Your task to perform on an android device: turn vacation reply on in the gmail app Image 0: 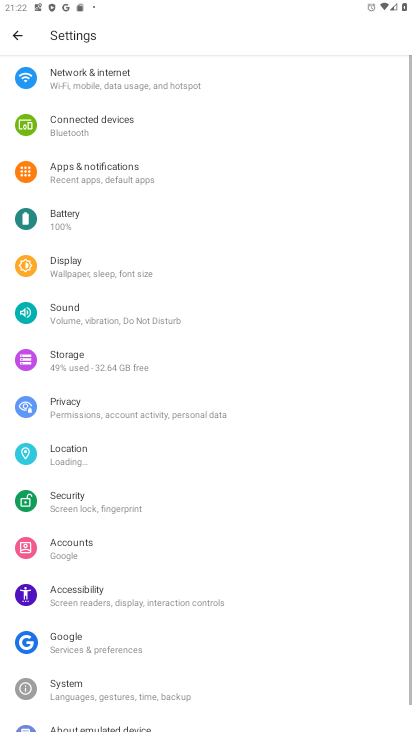
Step 0: press home button
Your task to perform on an android device: turn vacation reply on in the gmail app Image 1: 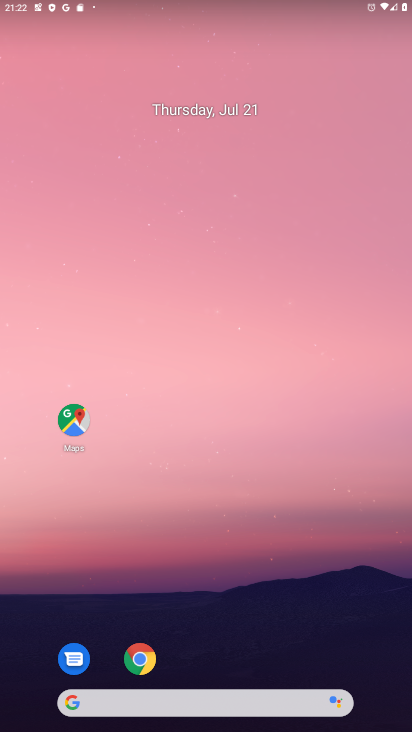
Step 1: drag from (260, 683) to (257, 115)
Your task to perform on an android device: turn vacation reply on in the gmail app Image 2: 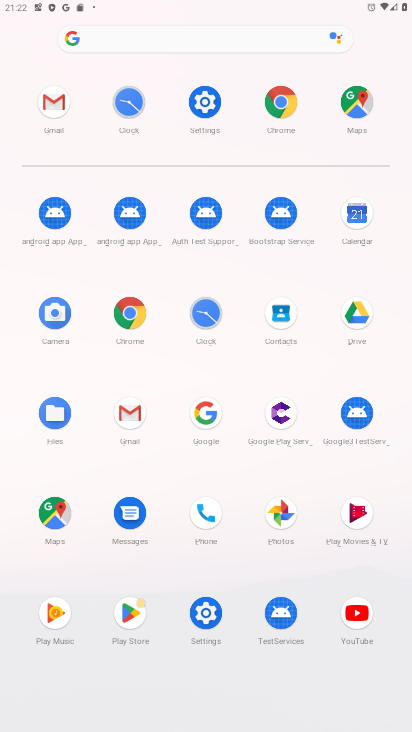
Step 2: click (128, 407)
Your task to perform on an android device: turn vacation reply on in the gmail app Image 3: 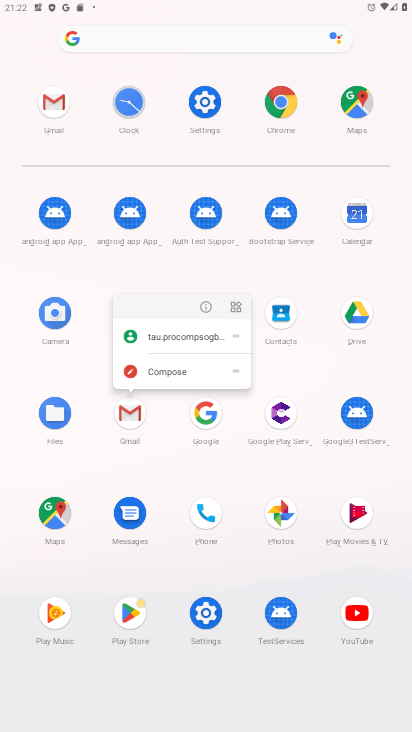
Step 3: click (128, 407)
Your task to perform on an android device: turn vacation reply on in the gmail app Image 4: 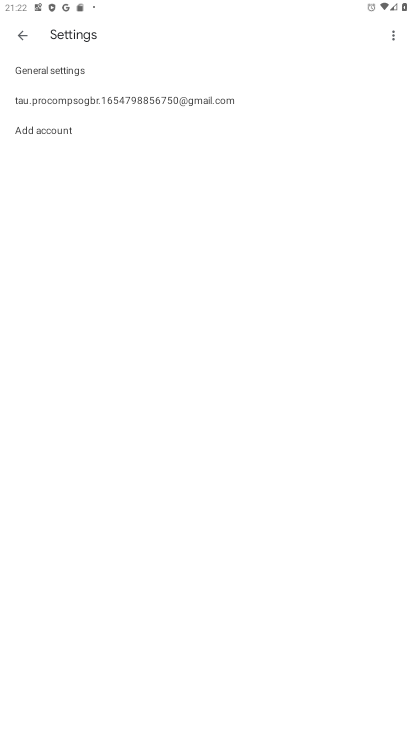
Step 4: click (21, 35)
Your task to perform on an android device: turn vacation reply on in the gmail app Image 5: 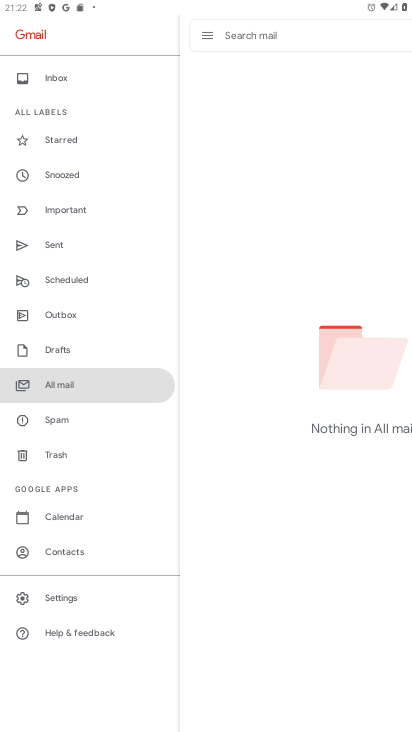
Step 5: click (65, 594)
Your task to perform on an android device: turn vacation reply on in the gmail app Image 6: 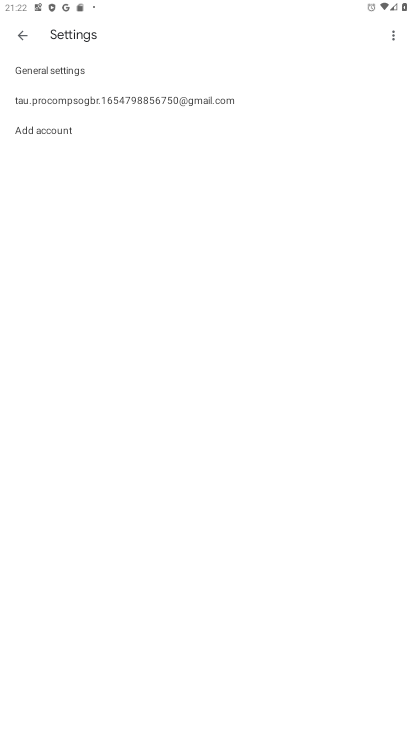
Step 6: drag from (228, 582) to (227, 411)
Your task to perform on an android device: turn vacation reply on in the gmail app Image 7: 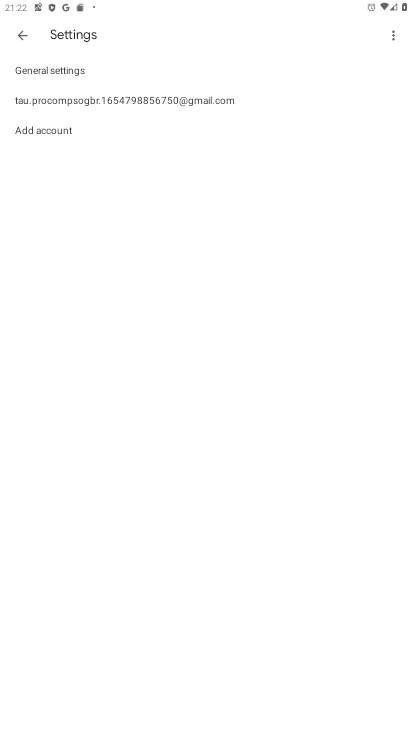
Step 7: click (203, 107)
Your task to perform on an android device: turn vacation reply on in the gmail app Image 8: 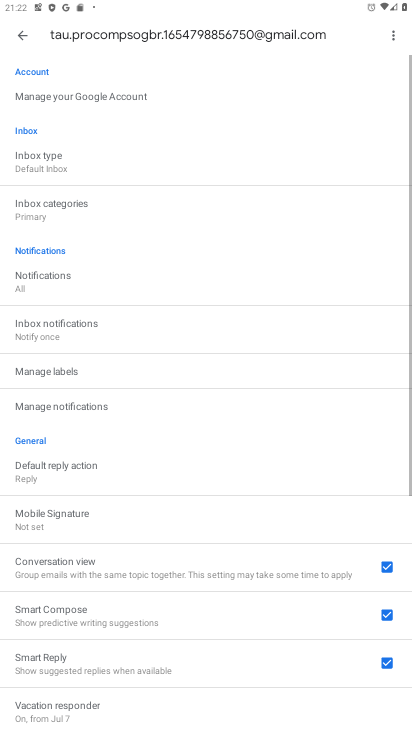
Step 8: drag from (192, 582) to (188, 461)
Your task to perform on an android device: turn vacation reply on in the gmail app Image 9: 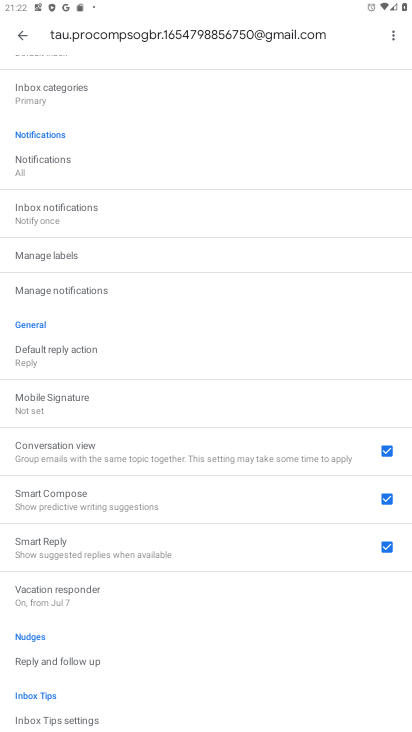
Step 9: click (42, 607)
Your task to perform on an android device: turn vacation reply on in the gmail app Image 10: 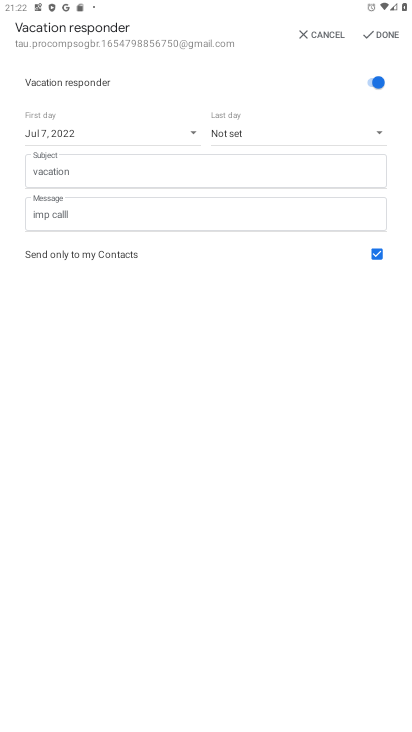
Step 10: click (74, 135)
Your task to perform on an android device: turn vacation reply on in the gmail app Image 11: 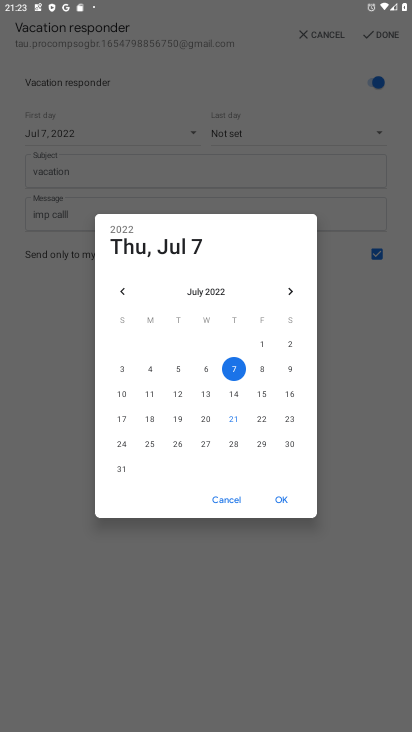
Step 11: click (252, 421)
Your task to perform on an android device: turn vacation reply on in the gmail app Image 12: 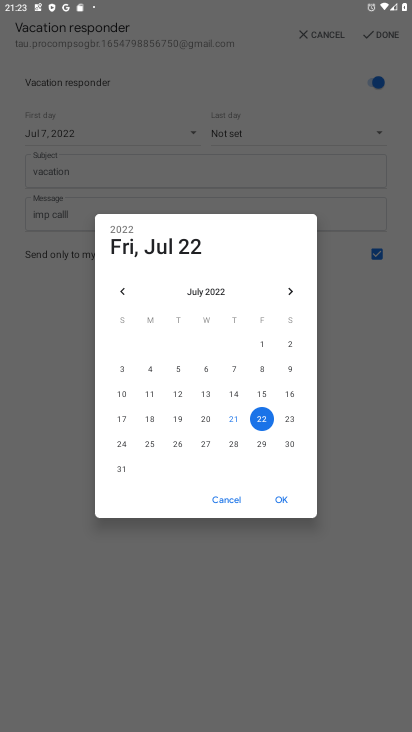
Step 12: click (284, 490)
Your task to perform on an android device: turn vacation reply on in the gmail app Image 13: 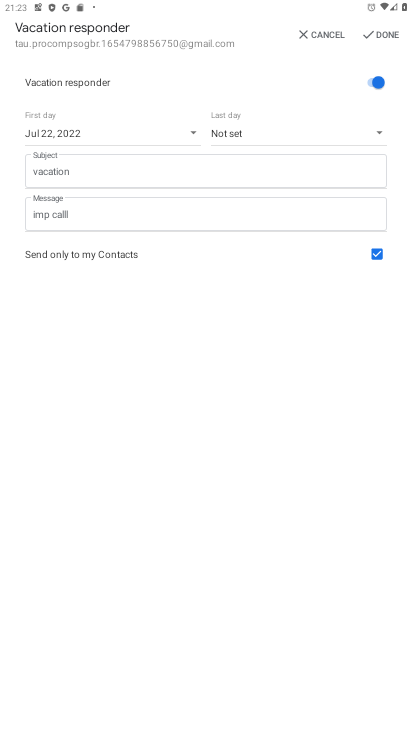
Step 13: click (240, 131)
Your task to perform on an android device: turn vacation reply on in the gmail app Image 14: 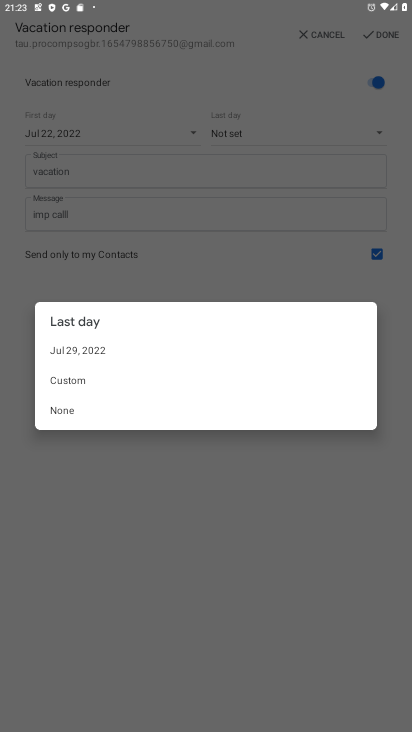
Step 14: click (78, 372)
Your task to perform on an android device: turn vacation reply on in the gmail app Image 15: 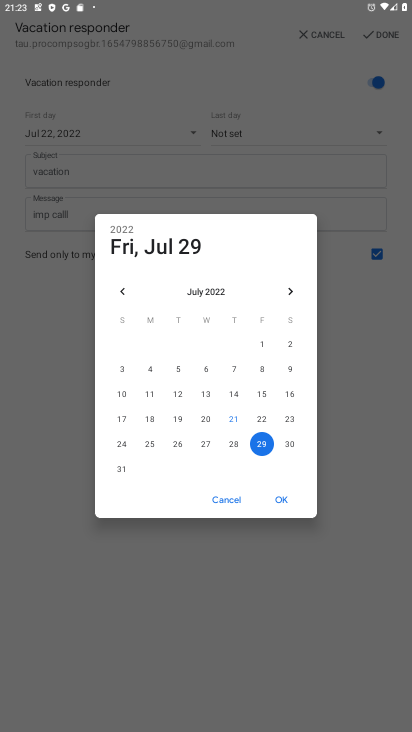
Step 15: drag from (288, 443) to (7, 380)
Your task to perform on an android device: turn vacation reply on in the gmail app Image 16: 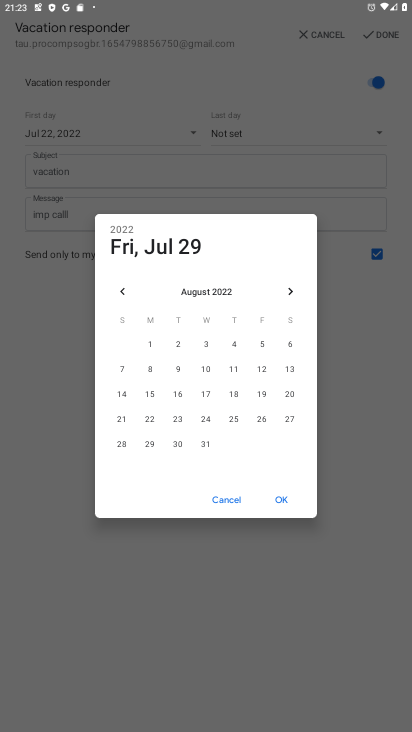
Step 16: drag from (250, 444) to (10, 436)
Your task to perform on an android device: turn vacation reply on in the gmail app Image 17: 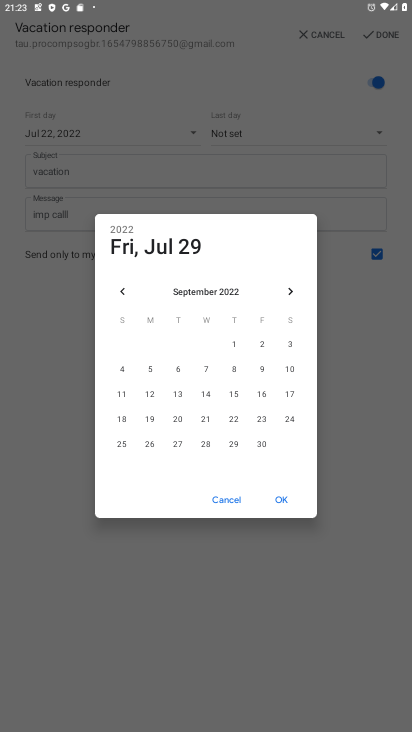
Step 17: drag from (262, 407) to (0, 387)
Your task to perform on an android device: turn vacation reply on in the gmail app Image 18: 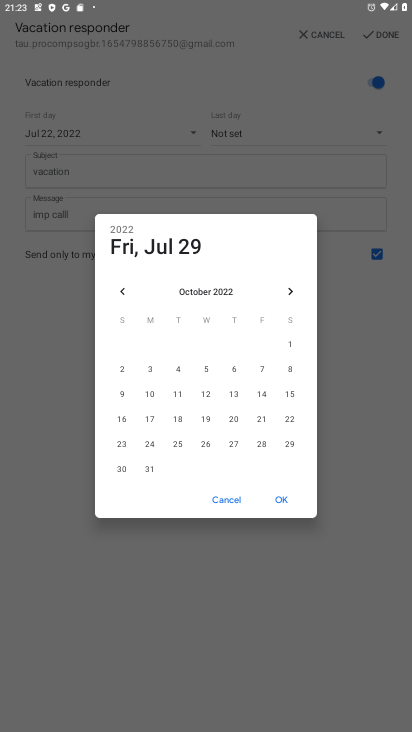
Step 18: drag from (194, 406) to (1, 360)
Your task to perform on an android device: turn vacation reply on in the gmail app Image 19: 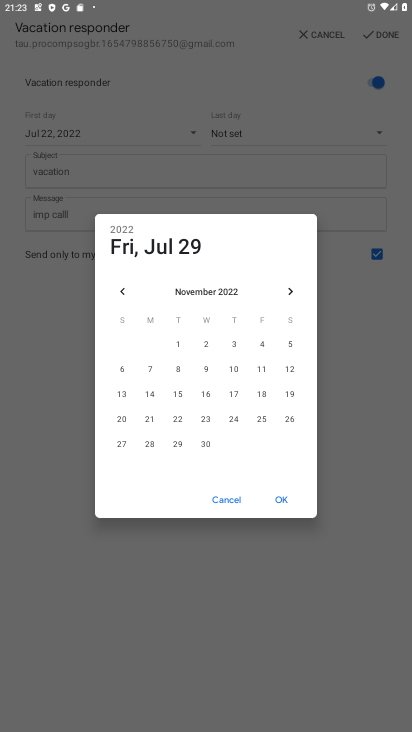
Step 19: click (194, 451)
Your task to perform on an android device: turn vacation reply on in the gmail app Image 20: 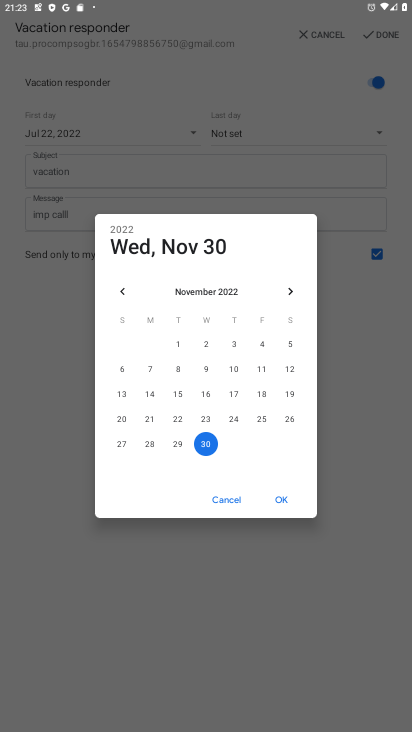
Step 20: click (287, 501)
Your task to perform on an android device: turn vacation reply on in the gmail app Image 21: 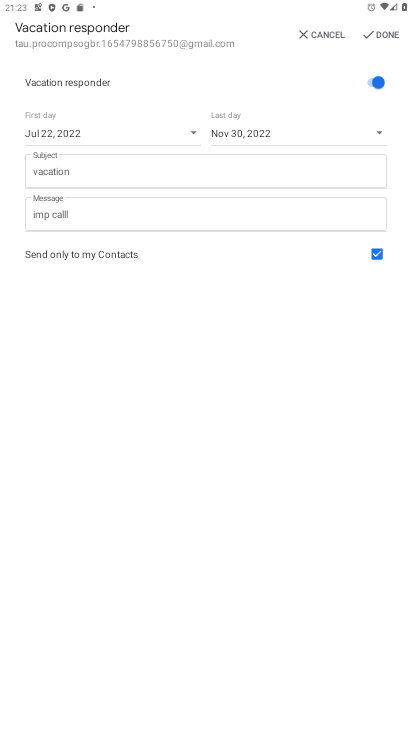
Step 21: click (372, 33)
Your task to perform on an android device: turn vacation reply on in the gmail app Image 22: 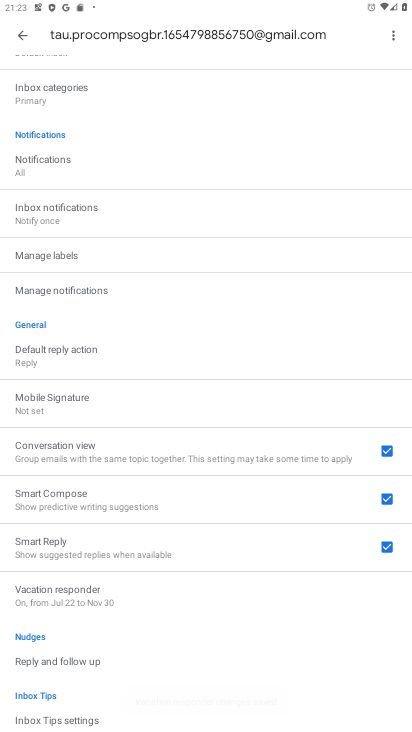
Step 22: task complete